Your task to perform on an android device: see sites visited before in the chrome app Image 0: 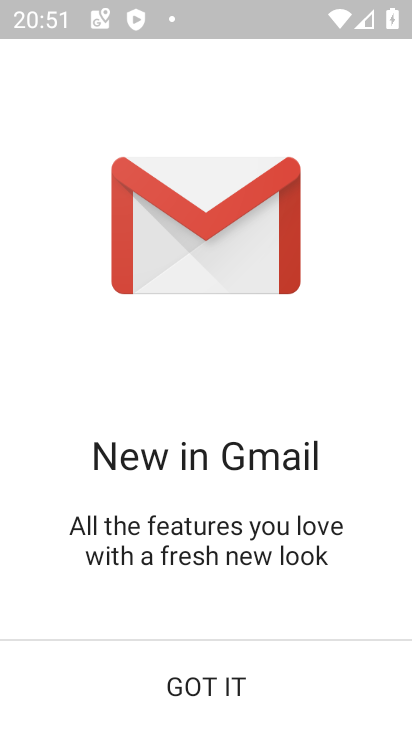
Step 0: press home button
Your task to perform on an android device: see sites visited before in the chrome app Image 1: 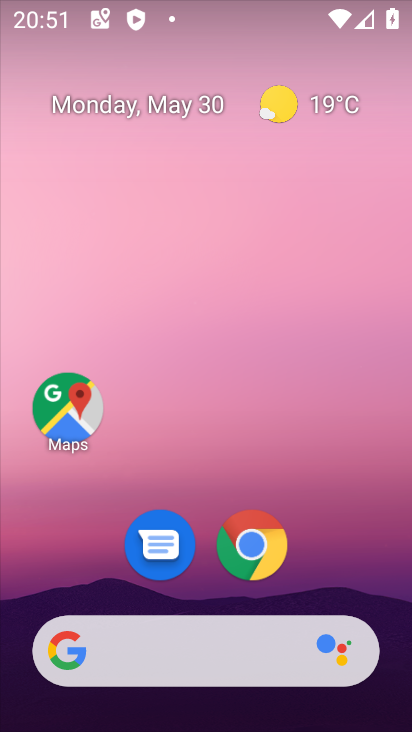
Step 1: click (252, 544)
Your task to perform on an android device: see sites visited before in the chrome app Image 2: 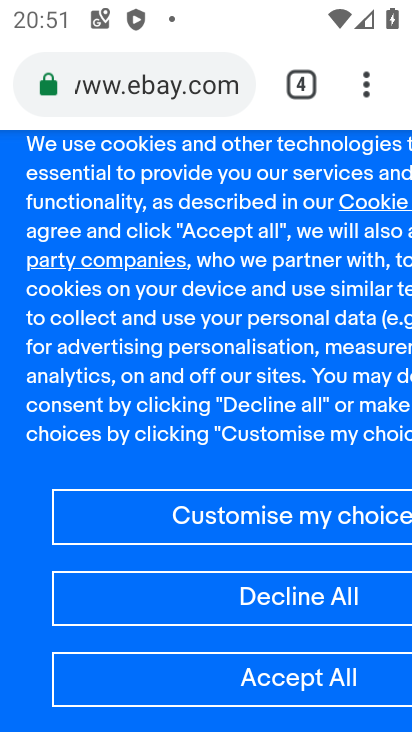
Step 2: click (373, 84)
Your task to perform on an android device: see sites visited before in the chrome app Image 3: 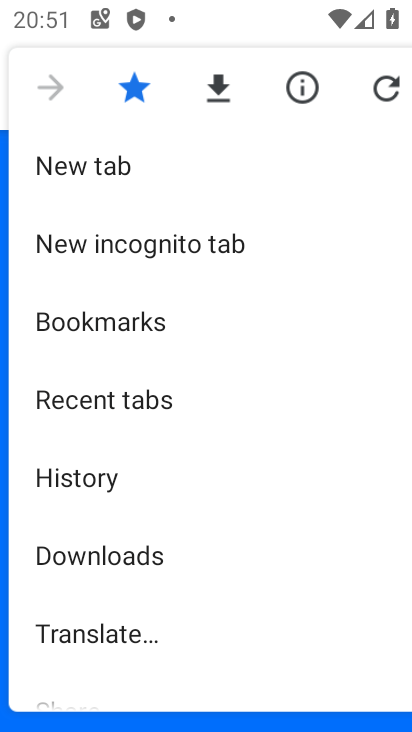
Step 3: click (76, 480)
Your task to perform on an android device: see sites visited before in the chrome app Image 4: 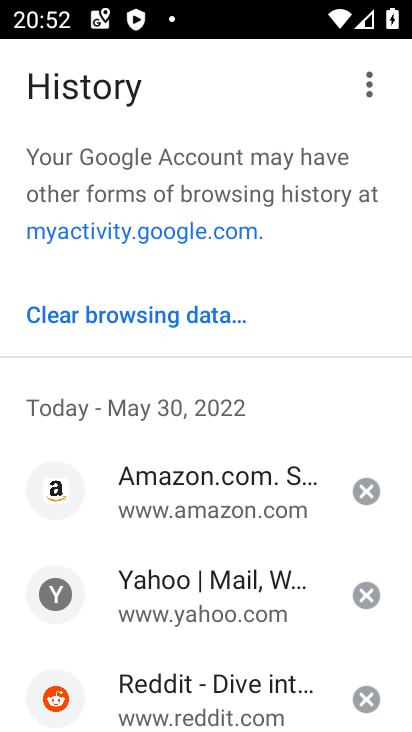
Step 4: task complete